Your task to perform on an android device: turn off data saver in the chrome app Image 0: 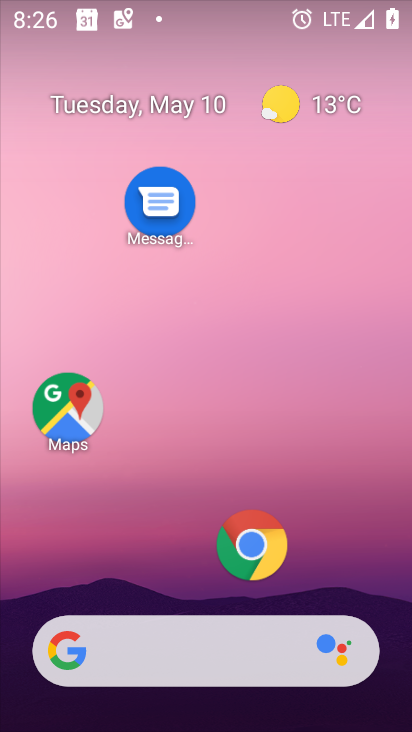
Step 0: press home button
Your task to perform on an android device: turn off data saver in the chrome app Image 1: 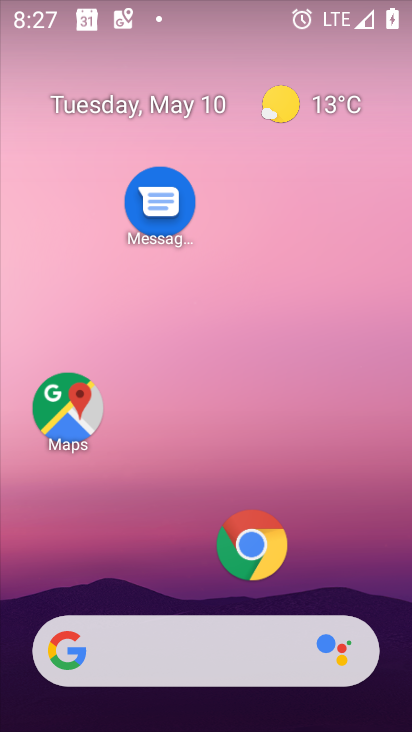
Step 1: click (249, 536)
Your task to perform on an android device: turn off data saver in the chrome app Image 2: 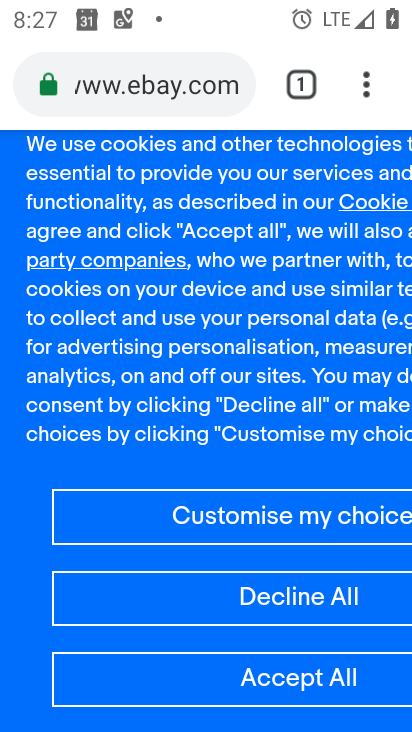
Step 2: click (362, 86)
Your task to perform on an android device: turn off data saver in the chrome app Image 3: 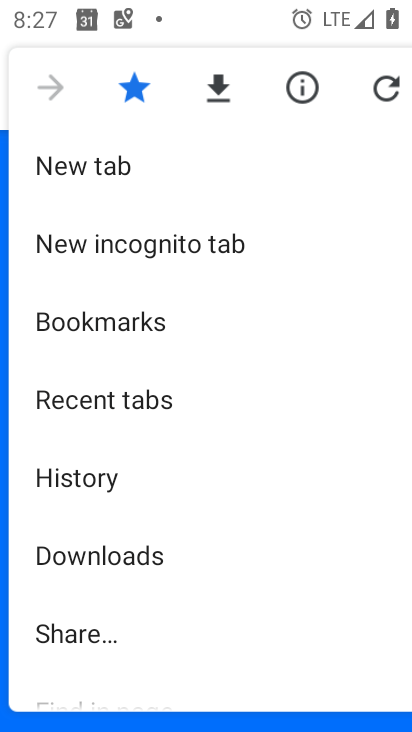
Step 3: drag from (210, 611) to (289, 113)
Your task to perform on an android device: turn off data saver in the chrome app Image 4: 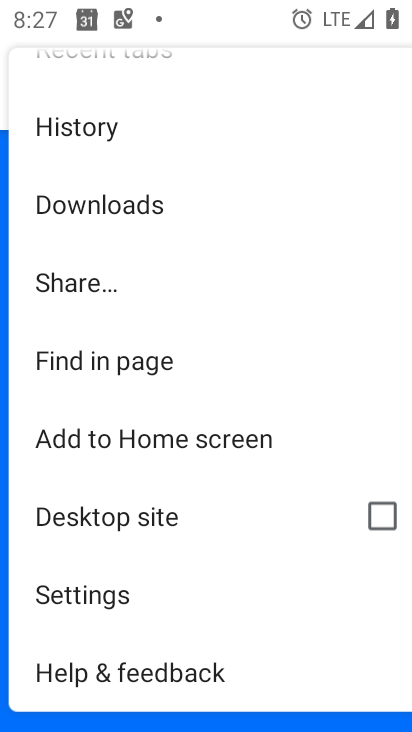
Step 4: click (139, 595)
Your task to perform on an android device: turn off data saver in the chrome app Image 5: 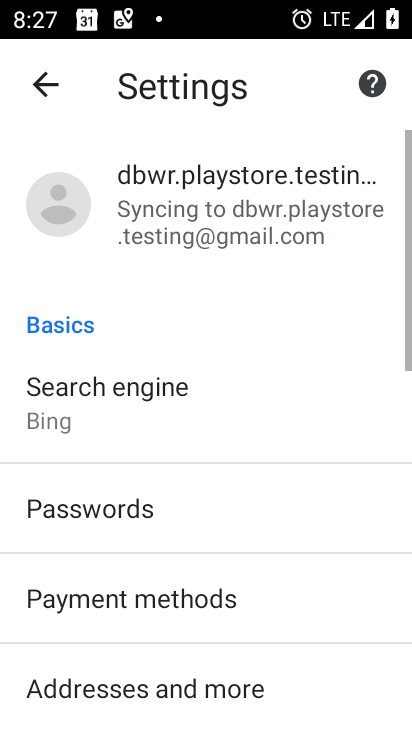
Step 5: drag from (218, 432) to (248, 119)
Your task to perform on an android device: turn off data saver in the chrome app Image 6: 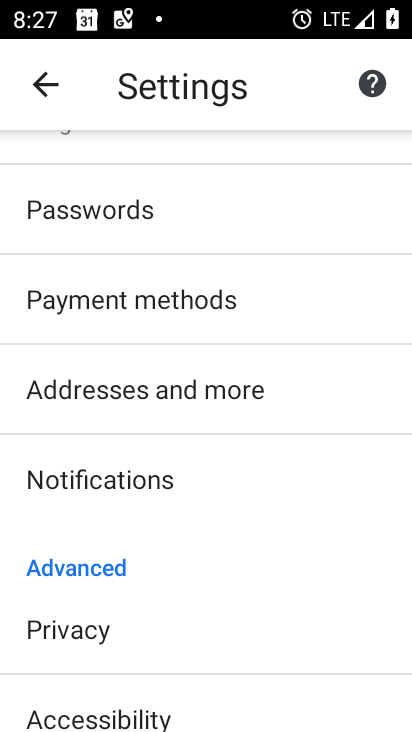
Step 6: drag from (211, 671) to (230, 99)
Your task to perform on an android device: turn off data saver in the chrome app Image 7: 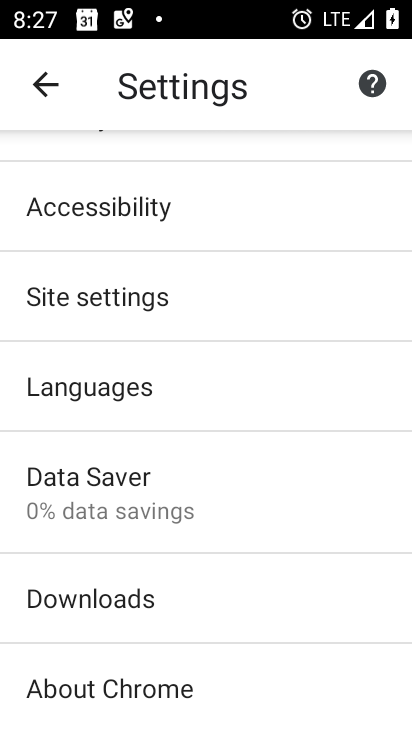
Step 7: click (203, 479)
Your task to perform on an android device: turn off data saver in the chrome app Image 8: 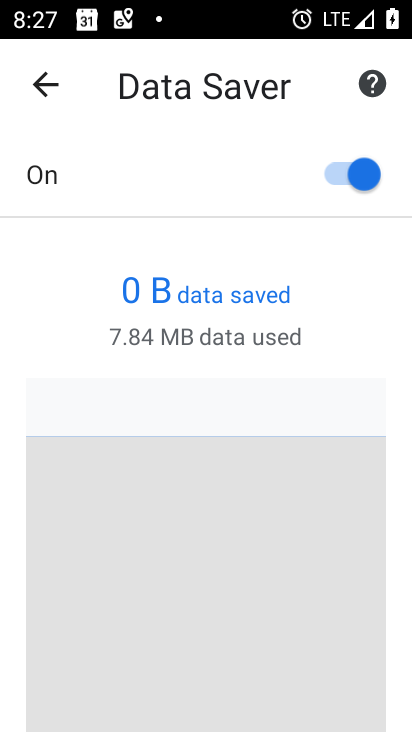
Step 8: click (340, 169)
Your task to perform on an android device: turn off data saver in the chrome app Image 9: 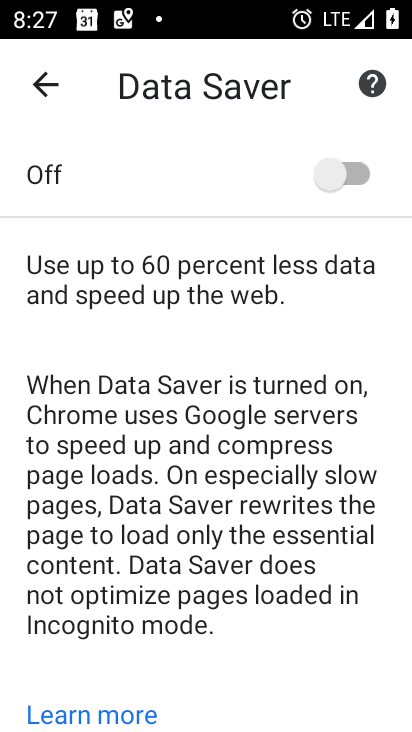
Step 9: task complete